Your task to perform on an android device: Open calendar and show me the third week of next month Image 0: 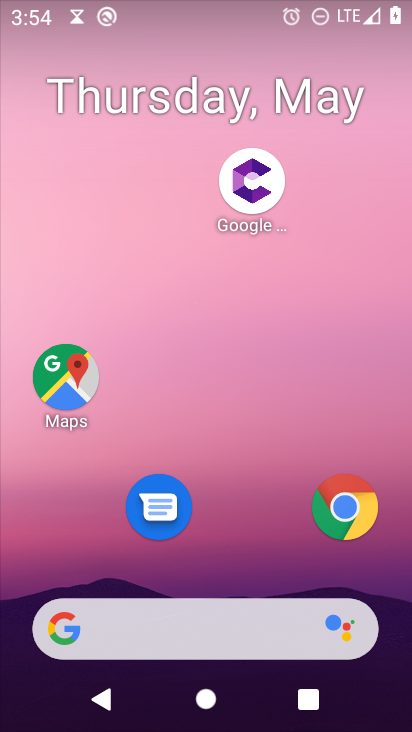
Step 0: press home button
Your task to perform on an android device: Open calendar and show me the third week of next month Image 1: 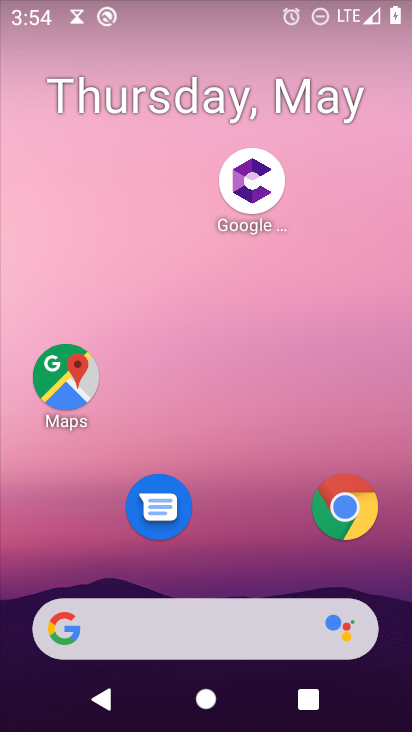
Step 1: drag from (277, 407) to (272, 10)
Your task to perform on an android device: Open calendar and show me the third week of next month Image 2: 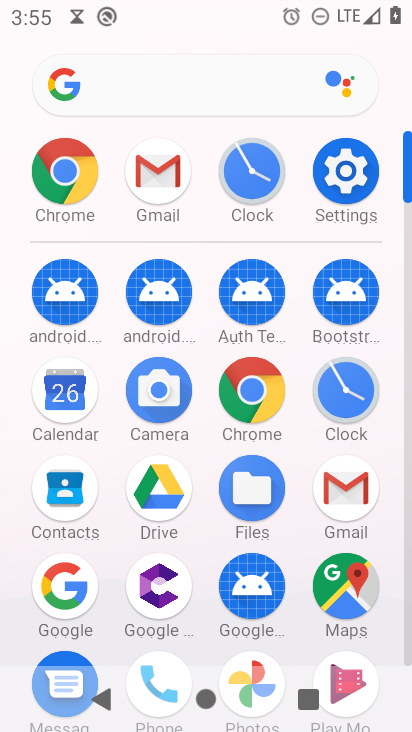
Step 2: click (65, 392)
Your task to perform on an android device: Open calendar and show me the third week of next month Image 3: 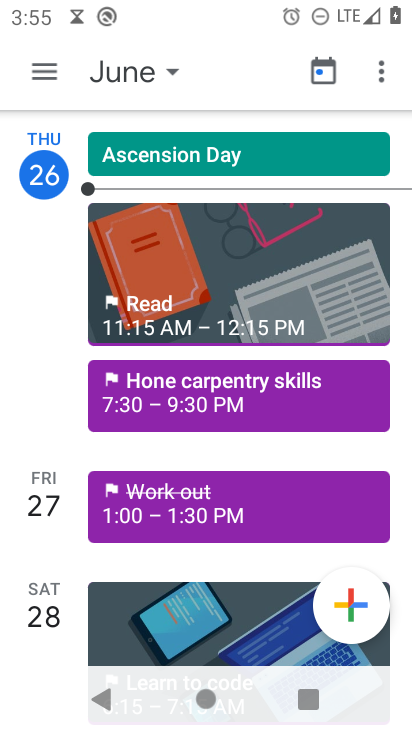
Step 3: drag from (37, 292) to (49, 716)
Your task to perform on an android device: Open calendar and show me the third week of next month Image 4: 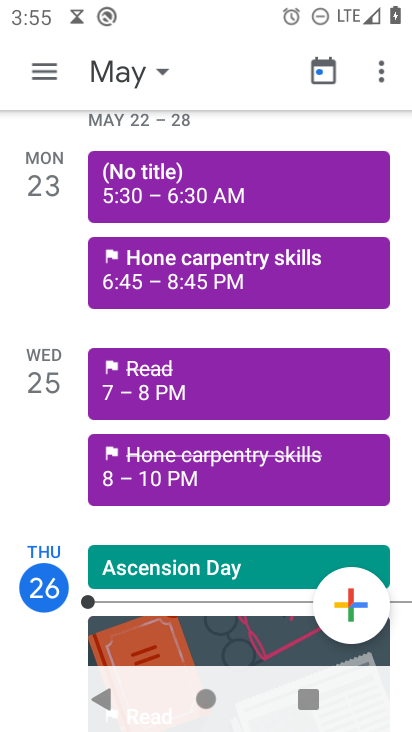
Step 4: drag from (39, 228) to (53, 607)
Your task to perform on an android device: Open calendar and show me the third week of next month Image 5: 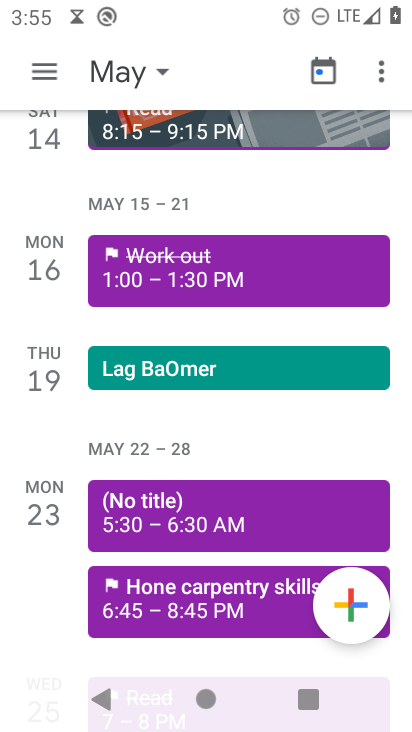
Step 5: click (164, 71)
Your task to perform on an android device: Open calendar and show me the third week of next month Image 6: 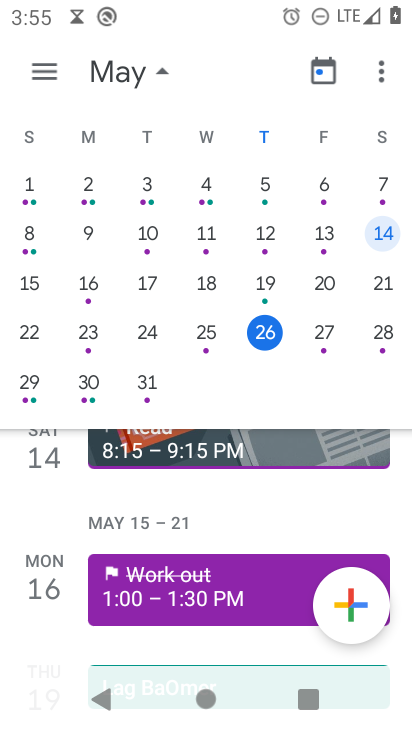
Step 6: drag from (315, 208) to (47, 211)
Your task to perform on an android device: Open calendar and show me the third week of next month Image 7: 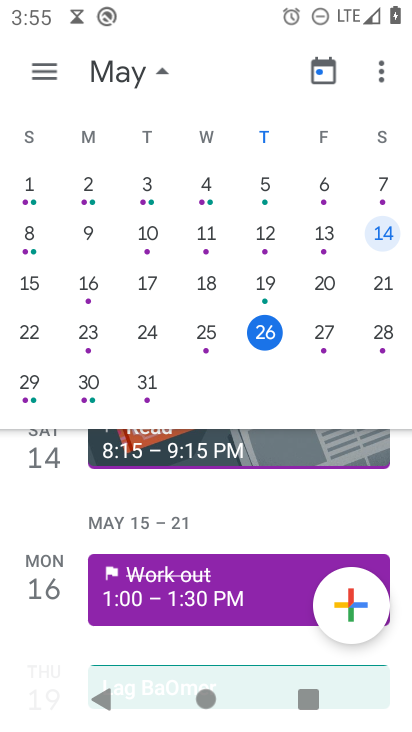
Step 7: drag from (314, 262) to (162, 263)
Your task to perform on an android device: Open calendar and show me the third week of next month Image 8: 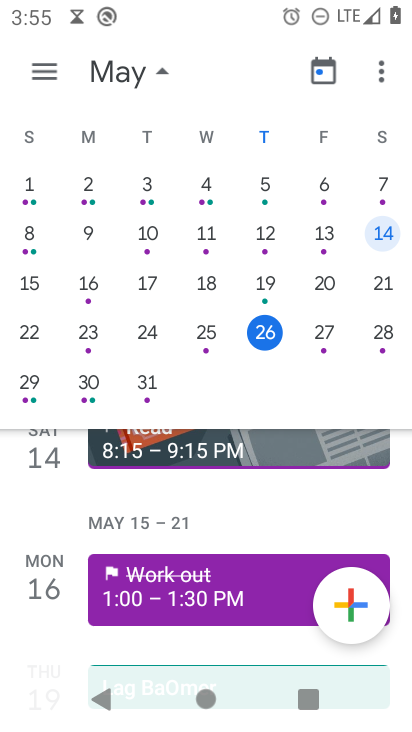
Step 8: drag from (385, 271) to (12, 224)
Your task to perform on an android device: Open calendar and show me the third week of next month Image 9: 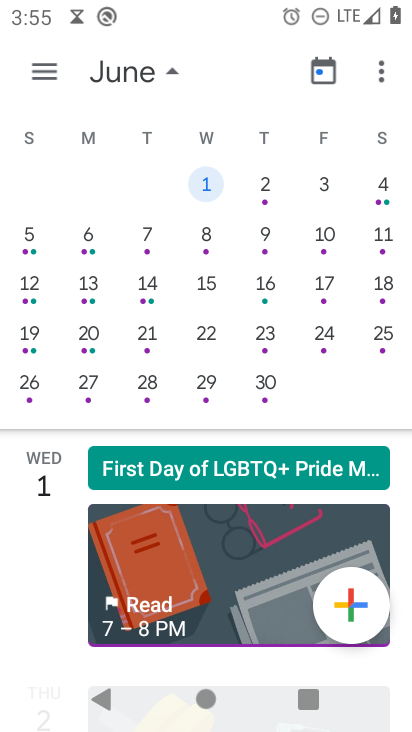
Step 9: click (36, 70)
Your task to perform on an android device: Open calendar and show me the third week of next month Image 10: 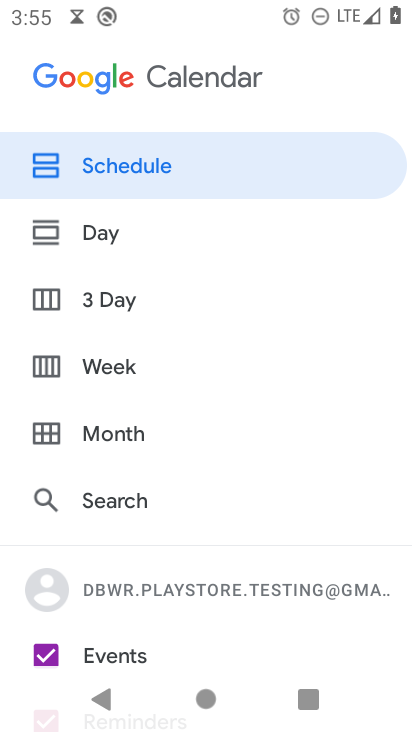
Step 10: click (89, 154)
Your task to perform on an android device: Open calendar and show me the third week of next month Image 11: 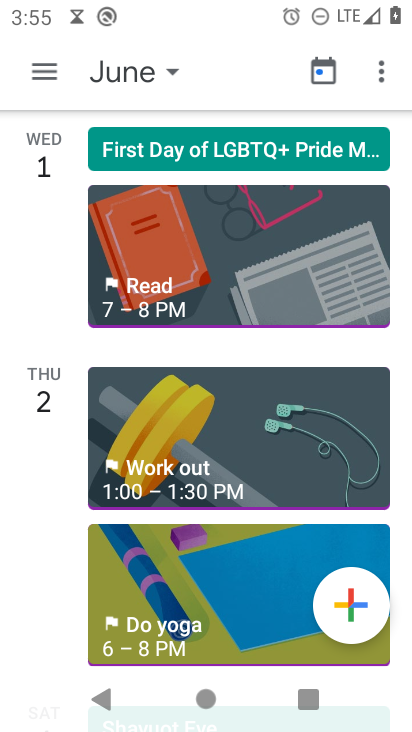
Step 11: task complete